Your task to perform on an android device: Open Google Maps Image 0: 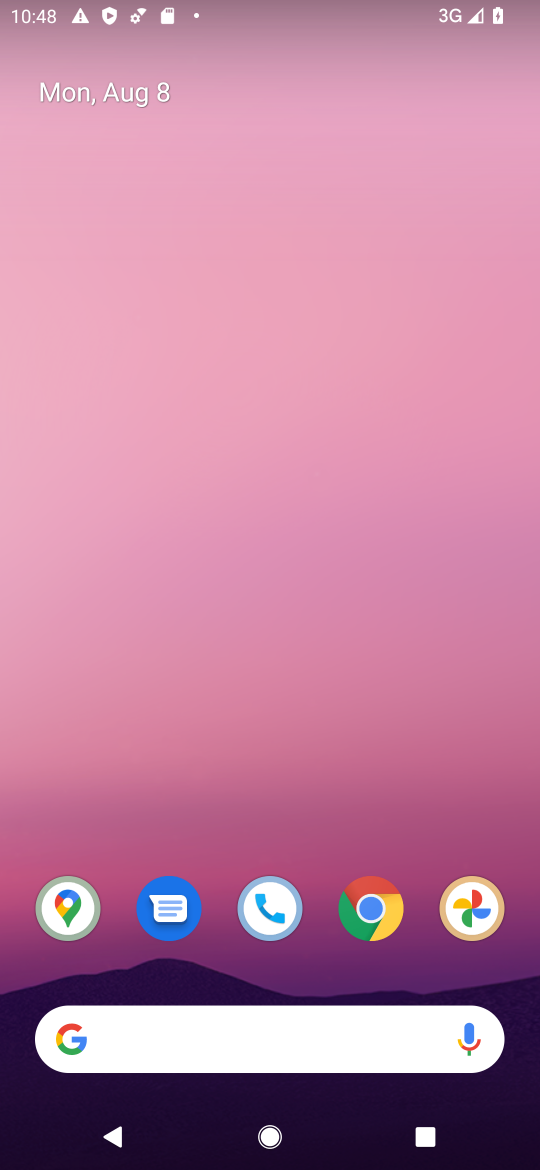
Step 0: press home button
Your task to perform on an android device: Open Google Maps Image 1: 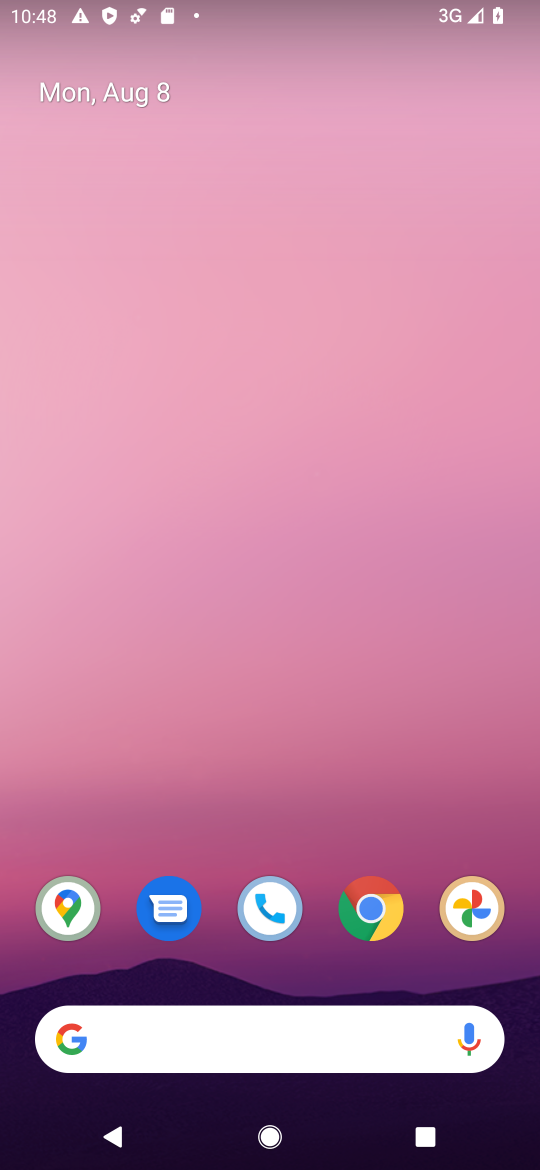
Step 1: press home button
Your task to perform on an android device: Open Google Maps Image 2: 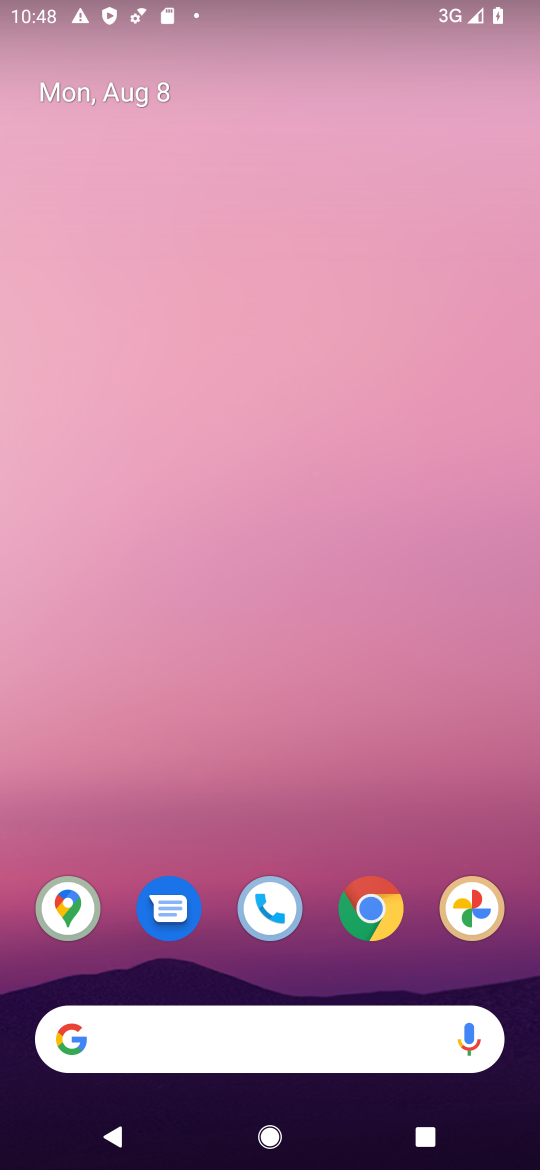
Step 2: click (62, 895)
Your task to perform on an android device: Open Google Maps Image 3: 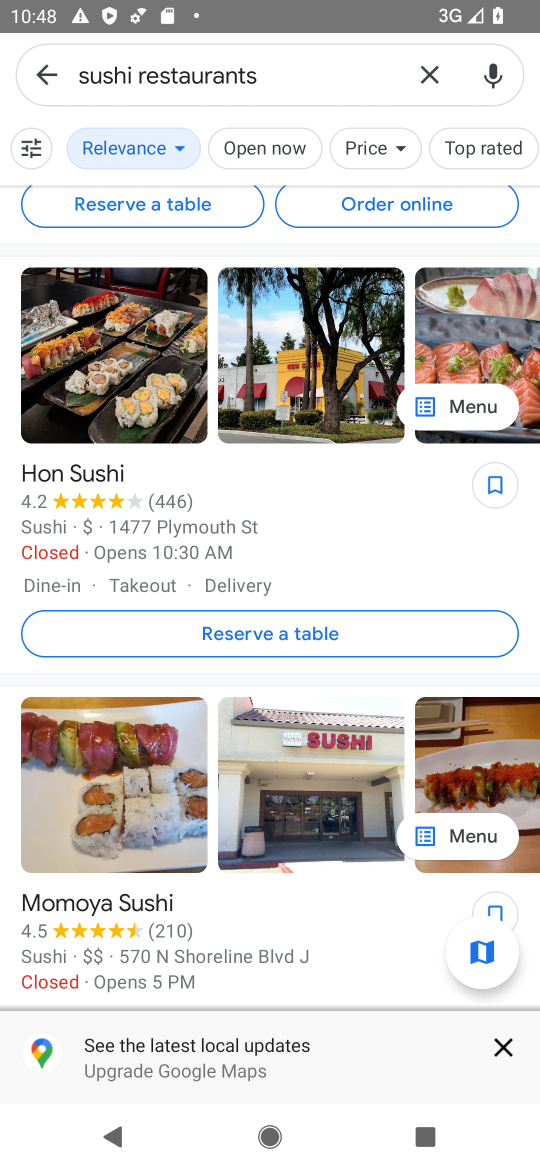
Step 3: click (42, 60)
Your task to perform on an android device: Open Google Maps Image 4: 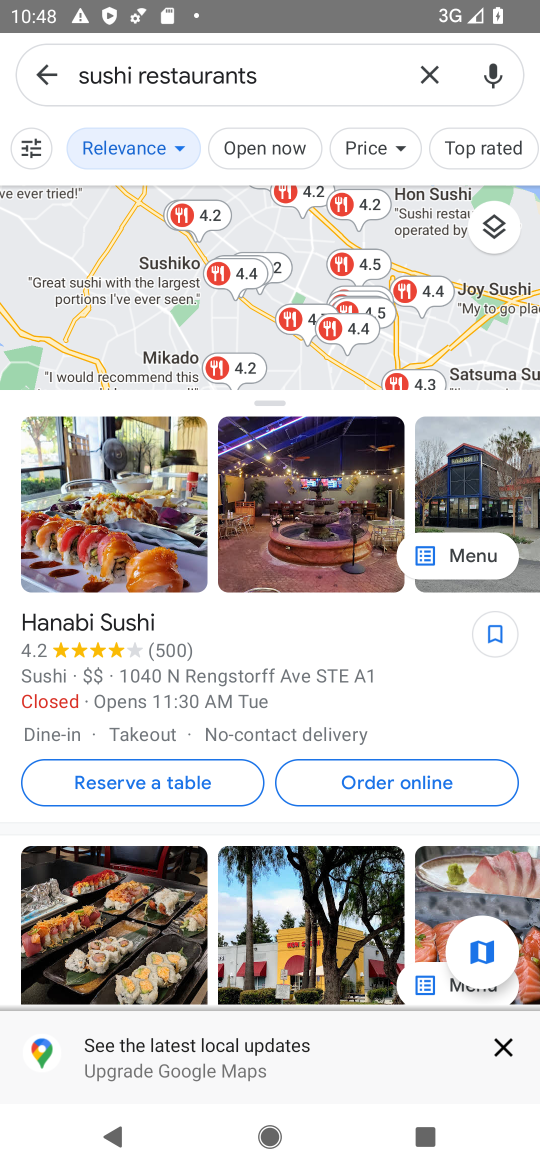
Step 4: click (42, 70)
Your task to perform on an android device: Open Google Maps Image 5: 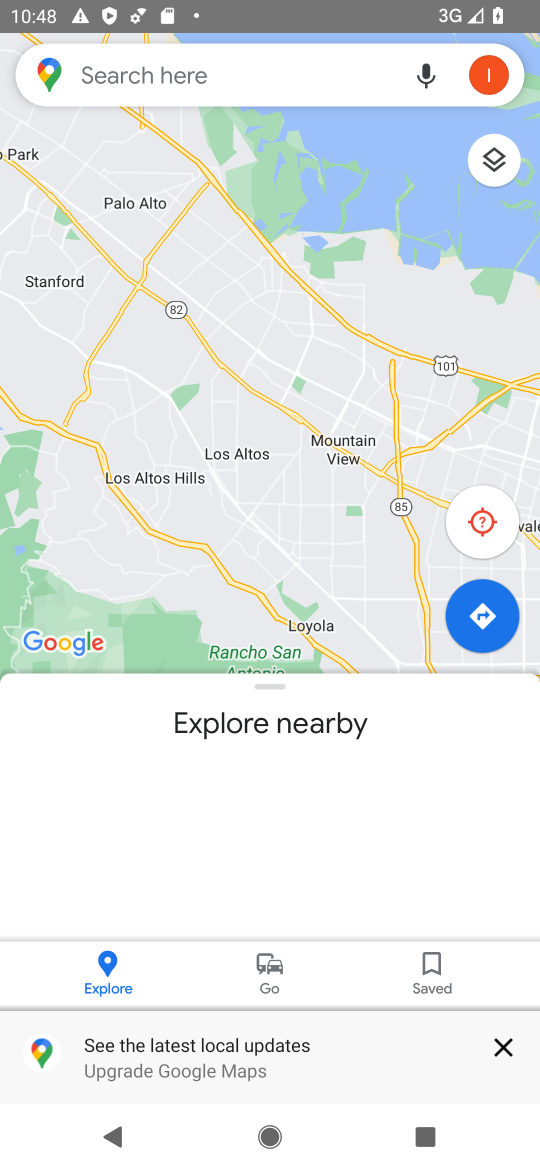
Step 5: task complete